Your task to perform on an android device: What's US dollar exchange rate against the Japanese Yen? Image 0: 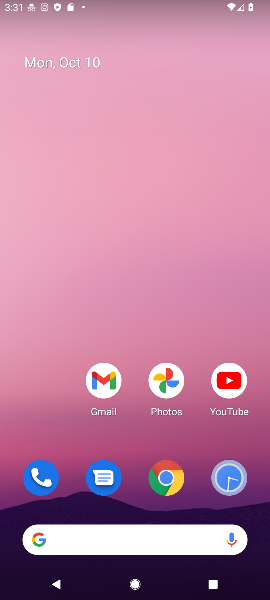
Step 0: click (164, 463)
Your task to perform on an android device: What's US dollar exchange rate against the Japanese Yen? Image 1: 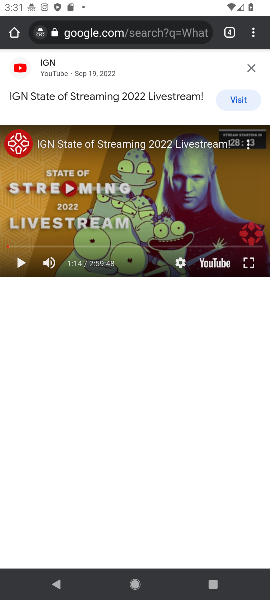
Step 1: click (97, 34)
Your task to perform on an android device: What's US dollar exchange rate against the Japanese Yen? Image 2: 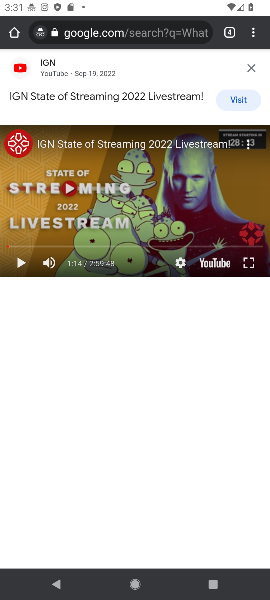
Step 2: click (97, 34)
Your task to perform on an android device: What's US dollar exchange rate against the Japanese Yen? Image 3: 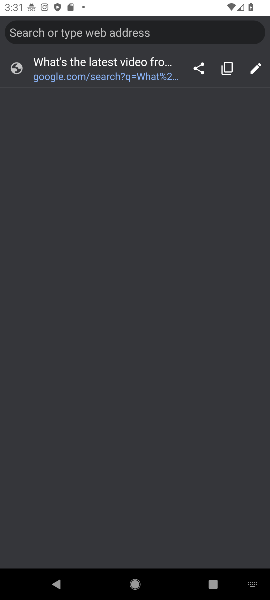
Step 3: type "What's US dollar exchange rate against the Japanese Yen?"
Your task to perform on an android device: What's US dollar exchange rate against the Japanese Yen? Image 4: 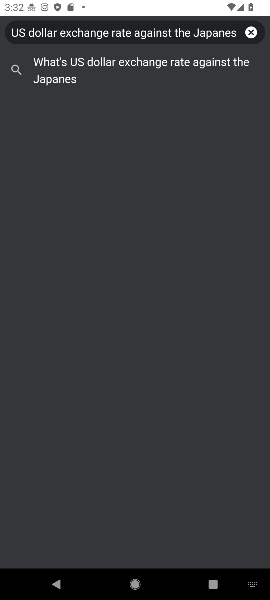
Step 4: click (93, 76)
Your task to perform on an android device: What's US dollar exchange rate against the Japanese Yen? Image 5: 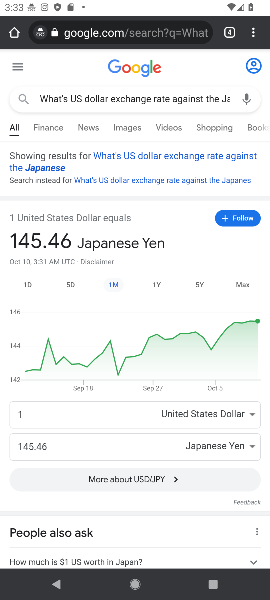
Step 5: task complete